Your task to perform on an android device: toggle wifi Image 0: 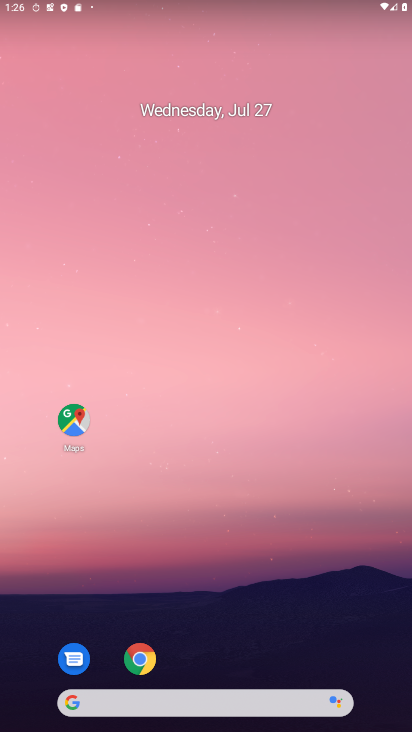
Step 0: press home button
Your task to perform on an android device: toggle wifi Image 1: 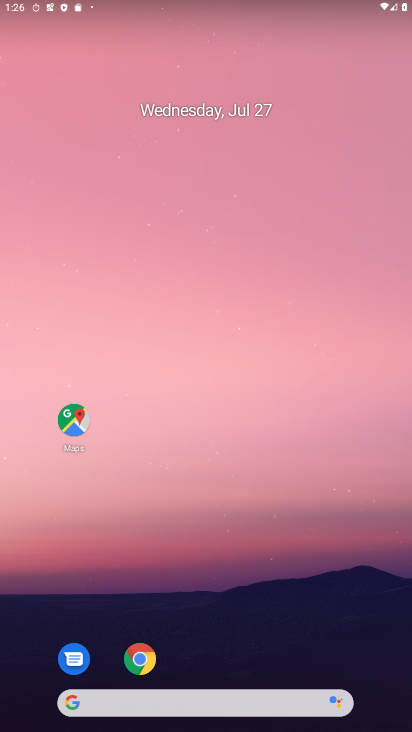
Step 1: drag from (309, 635) to (338, 117)
Your task to perform on an android device: toggle wifi Image 2: 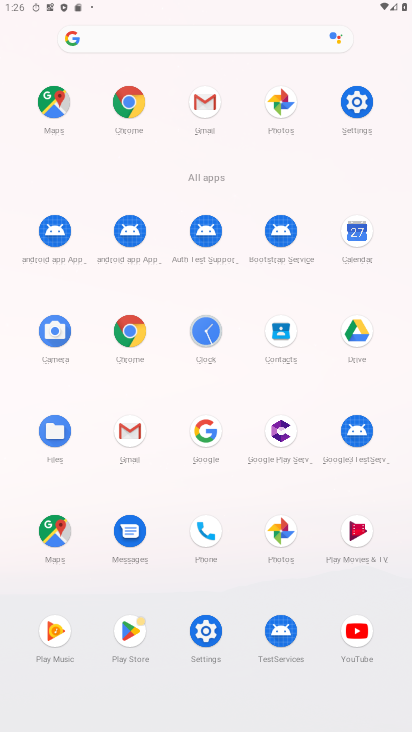
Step 2: drag from (309, 4) to (354, 419)
Your task to perform on an android device: toggle wifi Image 3: 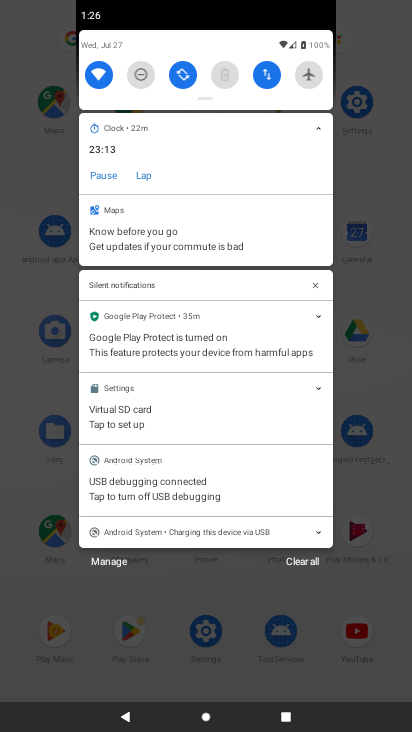
Step 3: click (105, 75)
Your task to perform on an android device: toggle wifi Image 4: 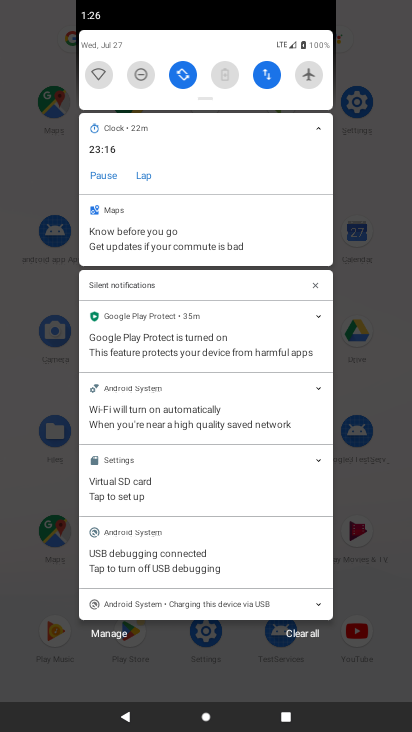
Step 4: task complete